Your task to perform on an android device: delete the emails in spam in the gmail app Image 0: 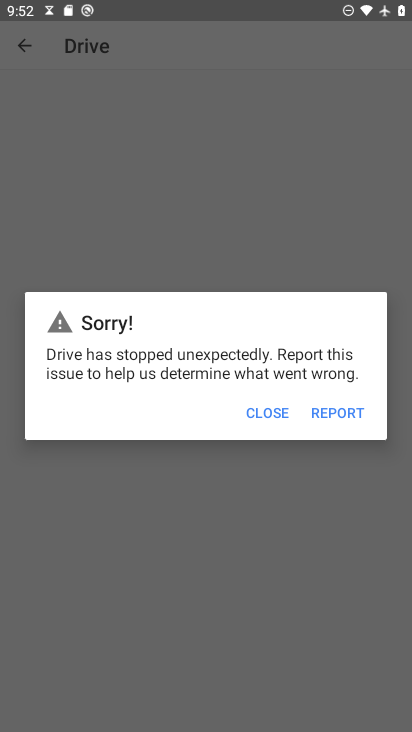
Step 0: press home button
Your task to perform on an android device: delete the emails in spam in the gmail app Image 1: 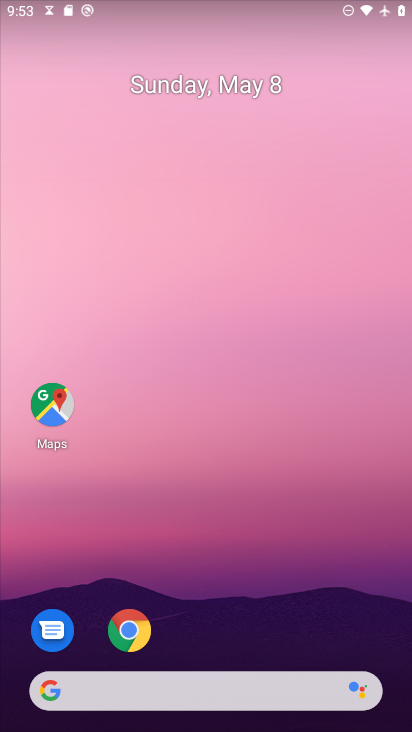
Step 1: drag from (133, 661) to (228, 219)
Your task to perform on an android device: delete the emails in spam in the gmail app Image 2: 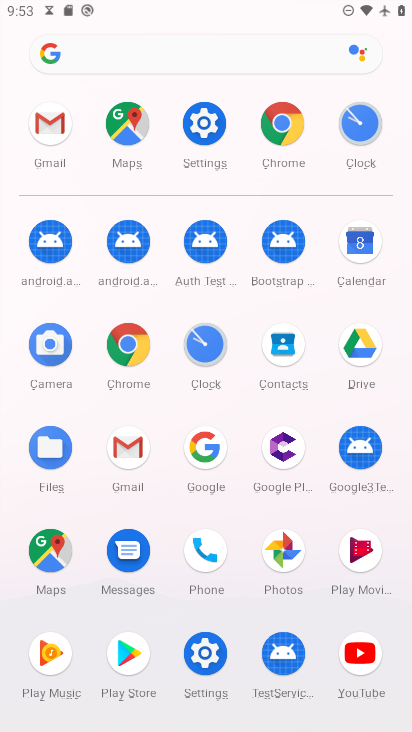
Step 2: click (58, 135)
Your task to perform on an android device: delete the emails in spam in the gmail app Image 3: 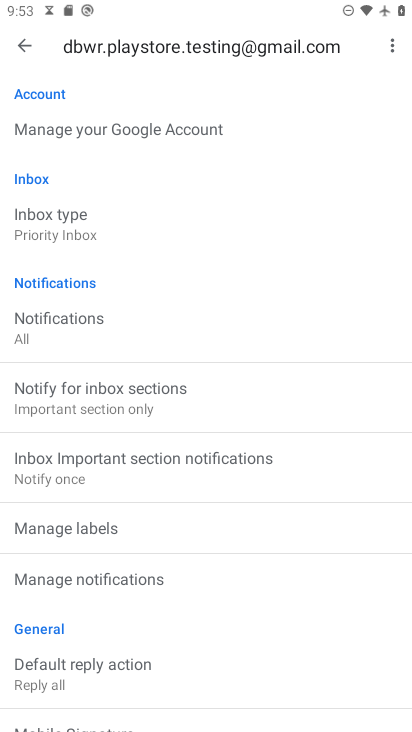
Step 3: click (23, 44)
Your task to perform on an android device: delete the emails in spam in the gmail app Image 4: 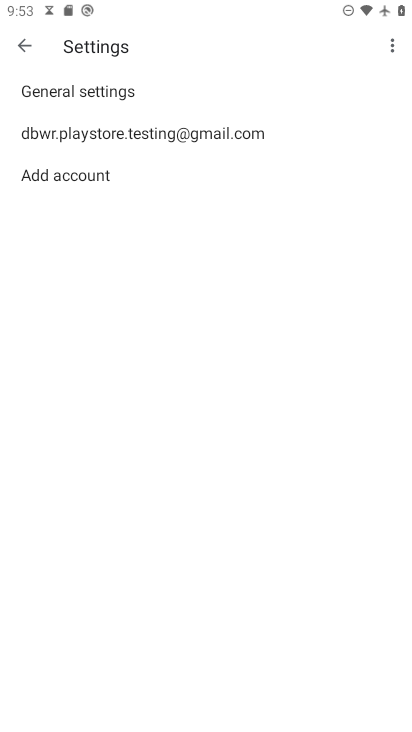
Step 4: click (183, 123)
Your task to perform on an android device: delete the emails in spam in the gmail app Image 5: 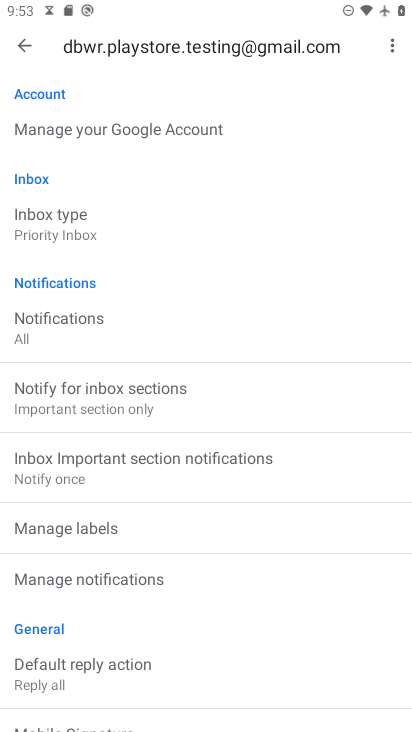
Step 5: click (21, 55)
Your task to perform on an android device: delete the emails in spam in the gmail app Image 6: 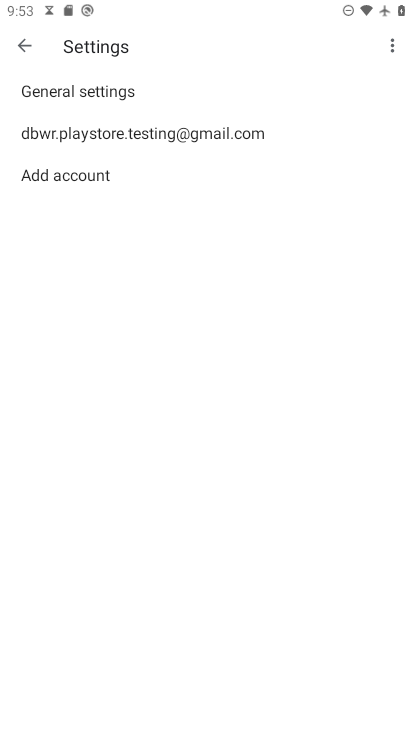
Step 6: click (21, 55)
Your task to perform on an android device: delete the emails in spam in the gmail app Image 7: 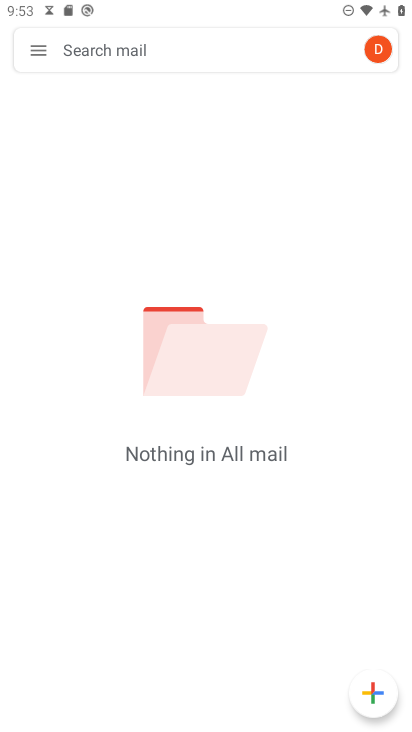
Step 7: click (36, 49)
Your task to perform on an android device: delete the emails in spam in the gmail app Image 8: 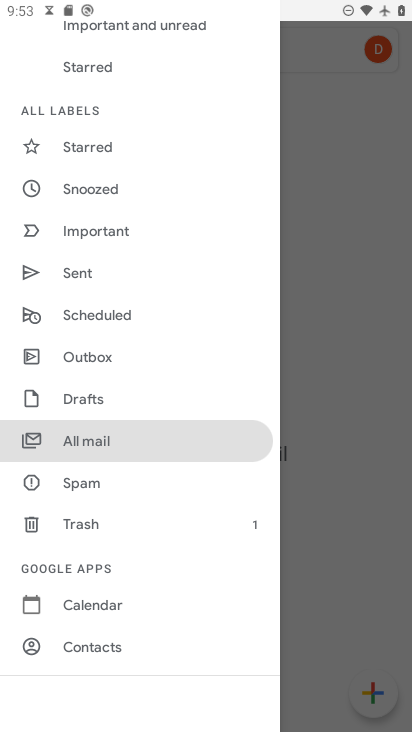
Step 8: click (108, 481)
Your task to perform on an android device: delete the emails in spam in the gmail app Image 9: 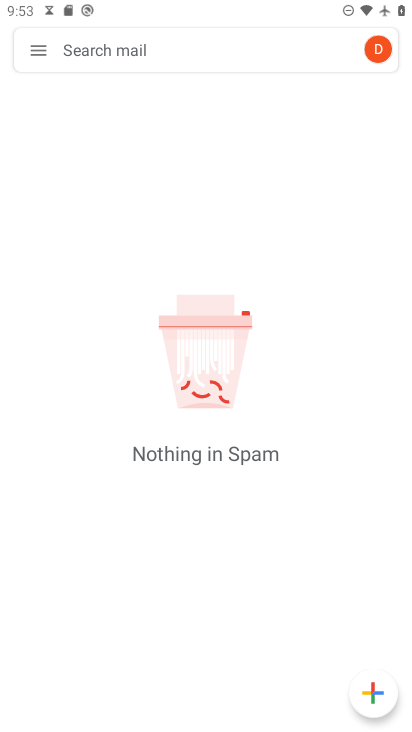
Step 9: task complete